Your task to perform on an android device: make emails show in primary in the gmail app Image 0: 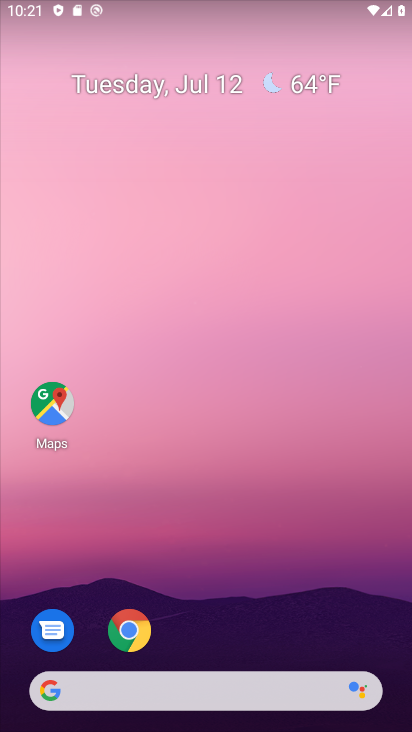
Step 0: drag from (354, 631) to (339, 120)
Your task to perform on an android device: make emails show in primary in the gmail app Image 1: 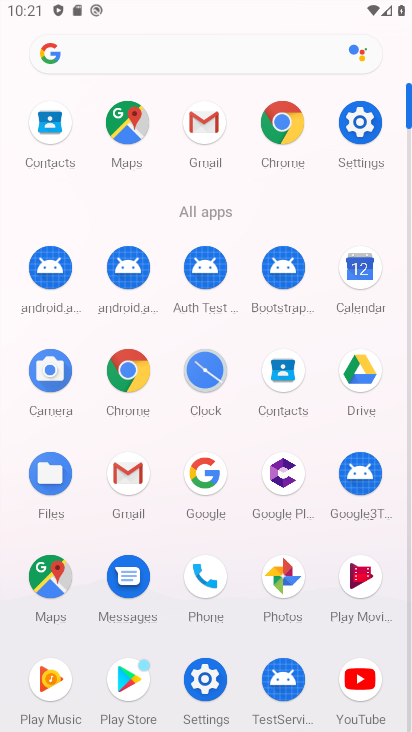
Step 1: click (124, 481)
Your task to perform on an android device: make emails show in primary in the gmail app Image 2: 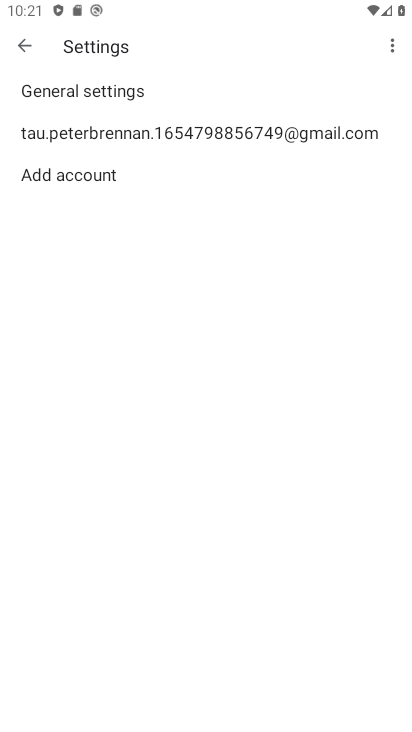
Step 2: click (325, 143)
Your task to perform on an android device: make emails show in primary in the gmail app Image 3: 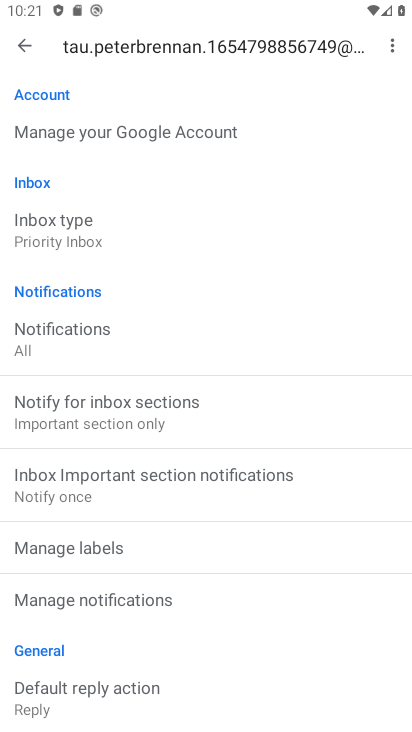
Step 3: drag from (328, 382) to (329, 296)
Your task to perform on an android device: make emails show in primary in the gmail app Image 4: 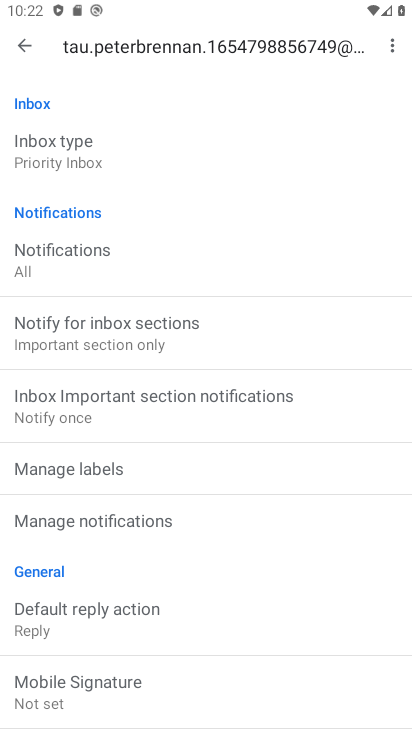
Step 4: drag from (332, 452) to (331, 338)
Your task to perform on an android device: make emails show in primary in the gmail app Image 5: 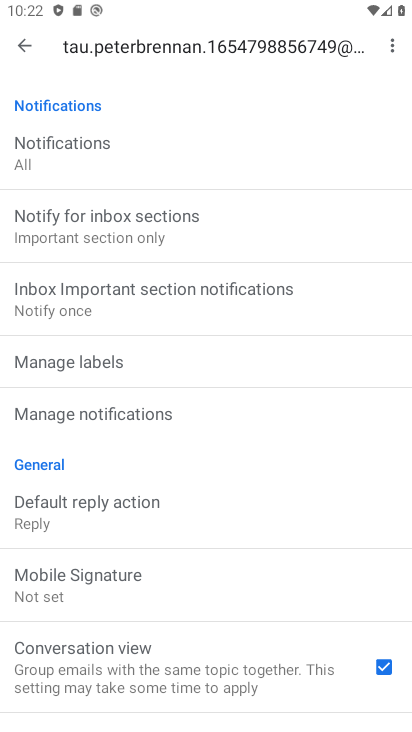
Step 5: drag from (335, 491) to (333, 343)
Your task to perform on an android device: make emails show in primary in the gmail app Image 6: 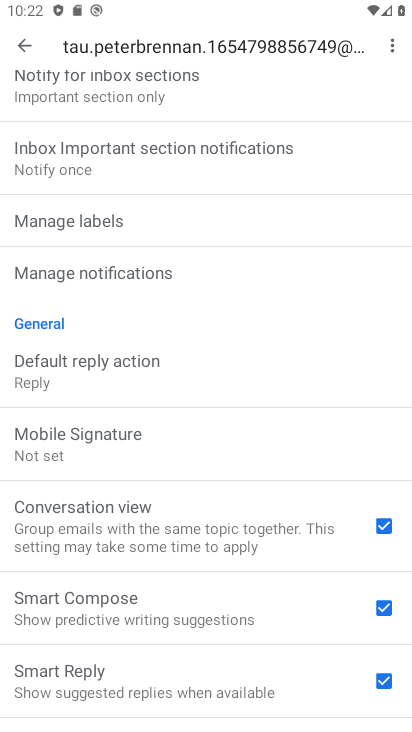
Step 6: drag from (335, 456) to (331, 290)
Your task to perform on an android device: make emails show in primary in the gmail app Image 7: 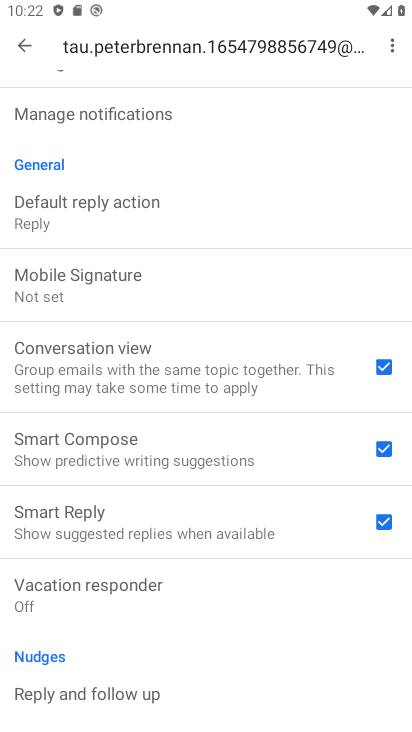
Step 7: drag from (313, 508) to (313, 329)
Your task to perform on an android device: make emails show in primary in the gmail app Image 8: 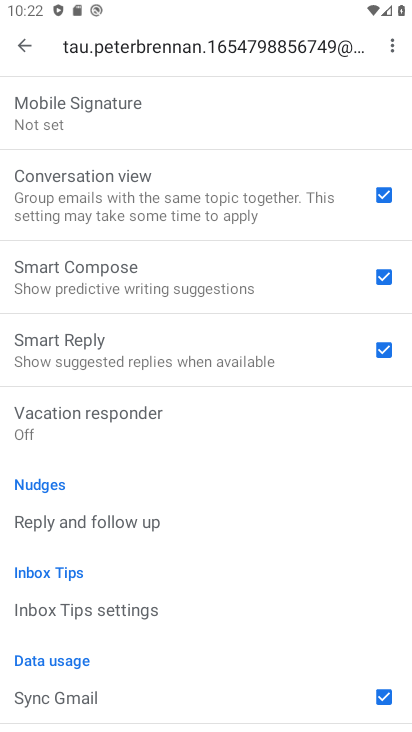
Step 8: drag from (301, 497) to (300, 285)
Your task to perform on an android device: make emails show in primary in the gmail app Image 9: 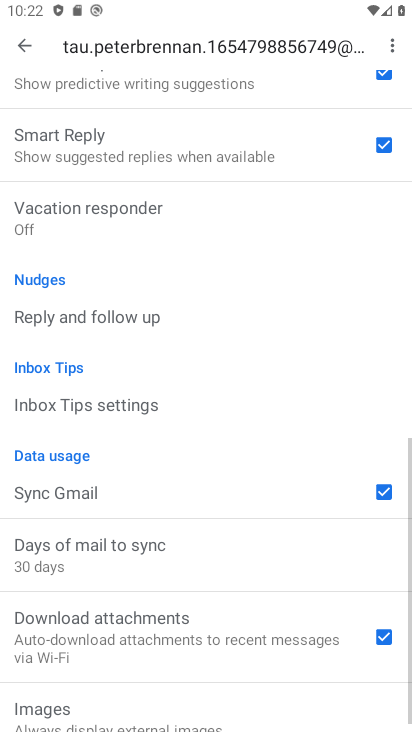
Step 9: drag from (307, 238) to (300, 405)
Your task to perform on an android device: make emails show in primary in the gmail app Image 10: 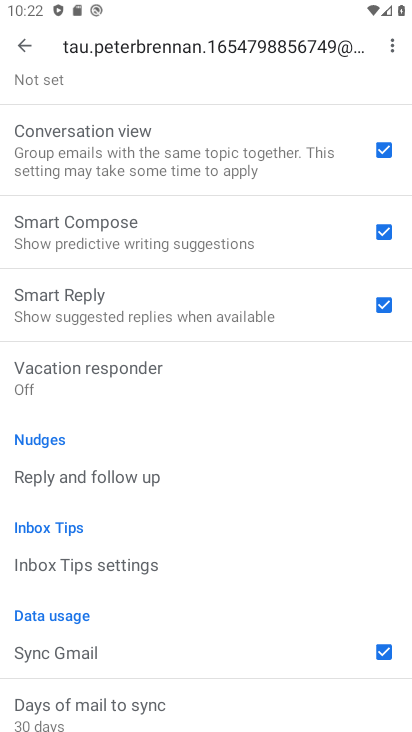
Step 10: drag from (300, 205) to (292, 319)
Your task to perform on an android device: make emails show in primary in the gmail app Image 11: 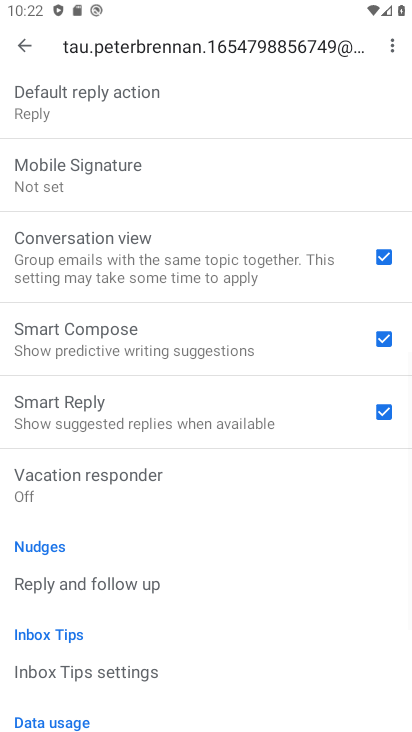
Step 11: drag from (289, 199) to (290, 372)
Your task to perform on an android device: make emails show in primary in the gmail app Image 12: 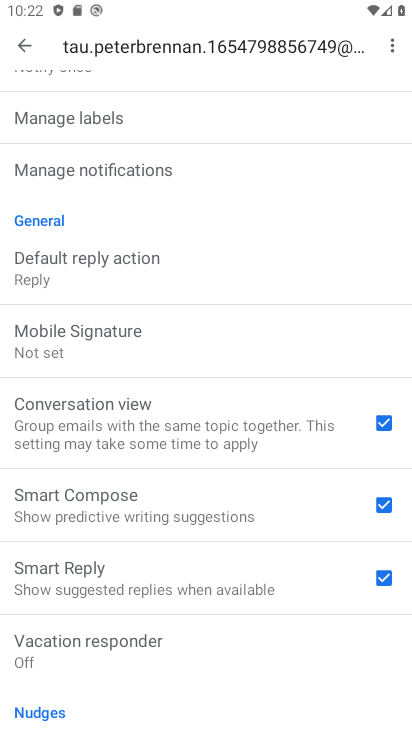
Step 12: drag from (285, 224) to (299, 394)
Your task to perform on an android device: make emails show in primary in the gmail app Image 13: 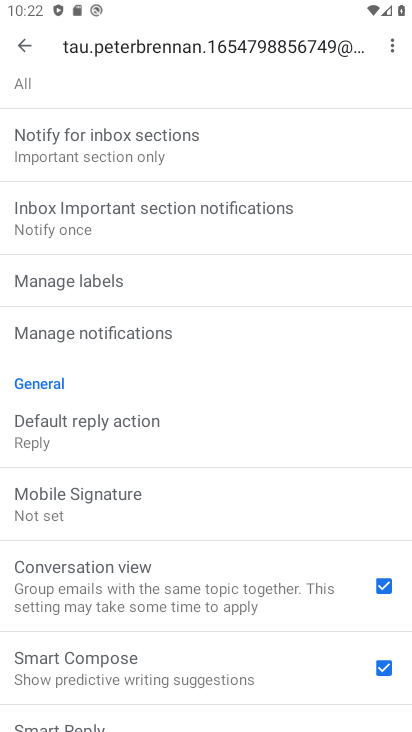
Step 13: drag from (319, 209) to (322, 374)
Your task to perform on an android device: make emails show in primary in the gmail app Image 14: 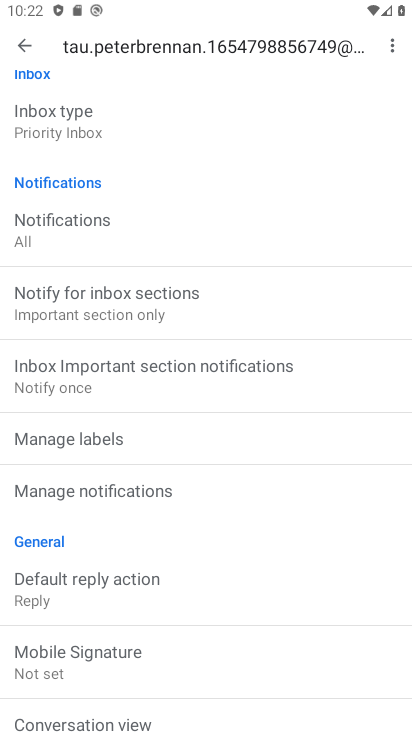
Step 14: drag from (312, 249) to (312, 384)
Your task to perform on an android device: make emails show in primary in the gmail app Image 15: 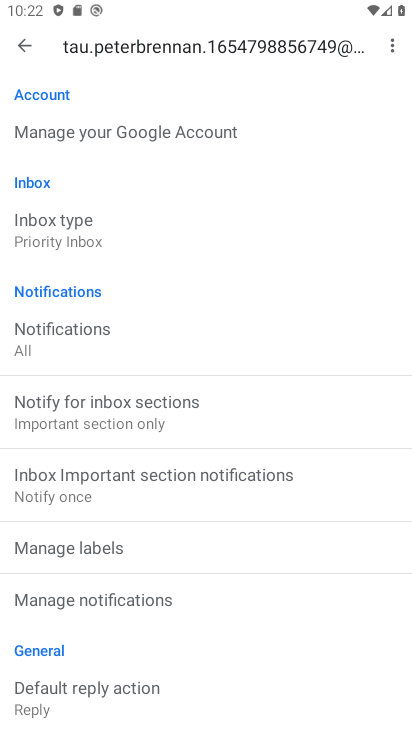
Step 15: drag from (302, 258) to (302, 402)
Your task to perform on an android device: make emails show in primary in the gmail app Image 16: 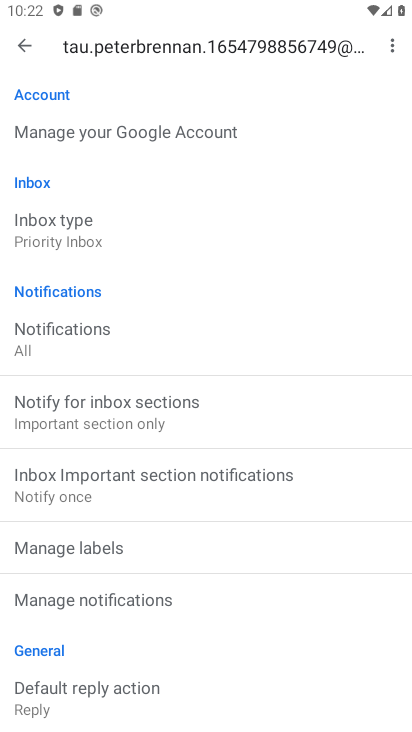
Step 16: click (119, 249)
Your task to perform on an android device: make emails show in primary in the gmail app Image 17: 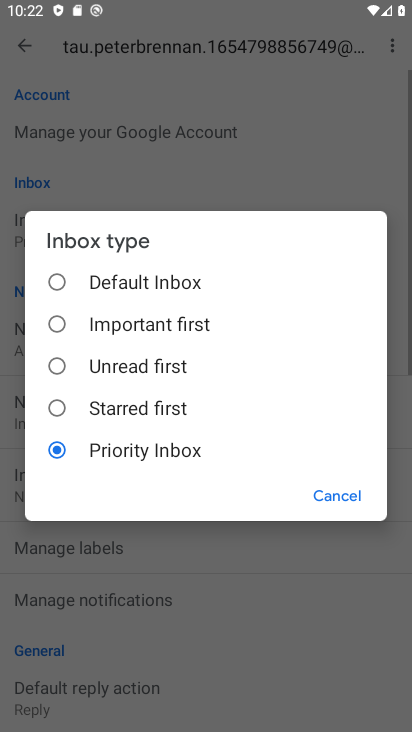
Step 17: click (134, 275)
Your task to perform on an android device: make emails show in primary in the gmail app Image 18: 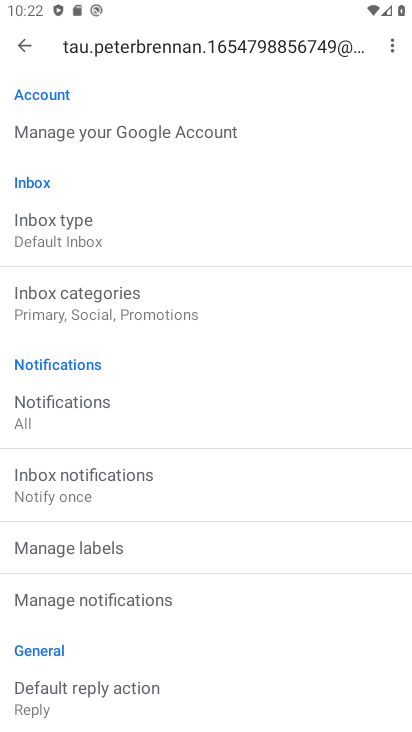
Step 18: click (103, 298)
Your task to perform on an android device: make emails show in primary in the gmail app Image 19: 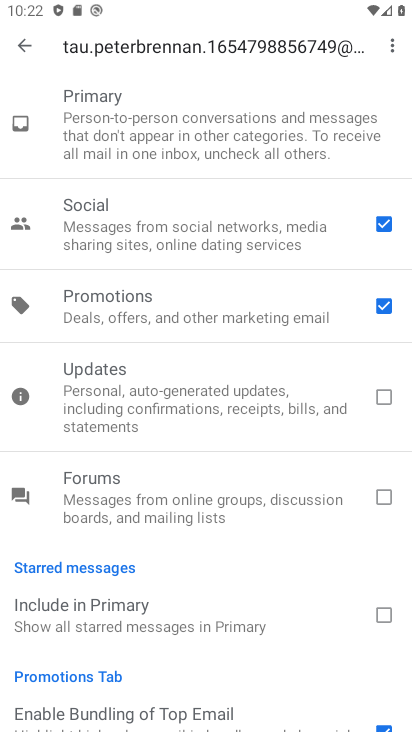
Step 19: click (376, 304)
Your task to perform on an android device: make emails show in primary in the gmail app Image 20: 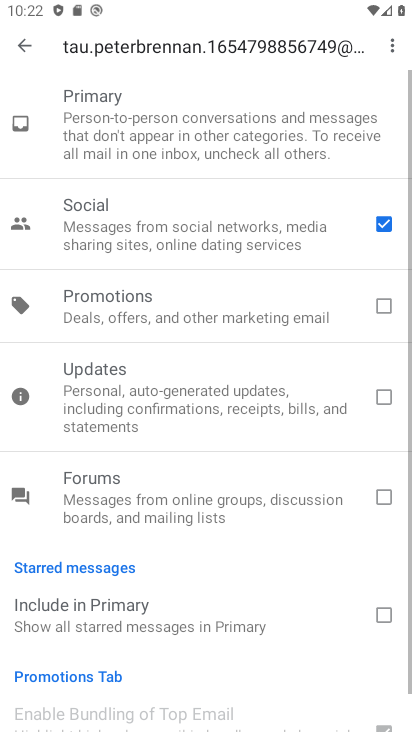
Step 20: click (382, 223)
Your task to perform on an android device: make emails show in primary in the gmail app Image 21: 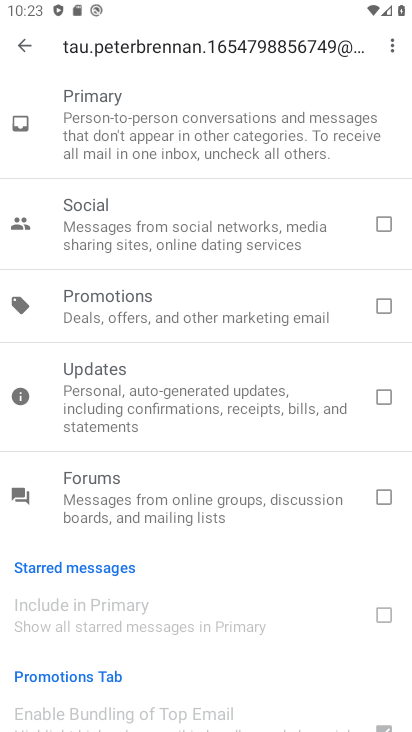
Step 21: task complete